Your task to perform on an android device: snooze an email in the gmail app Image 0: 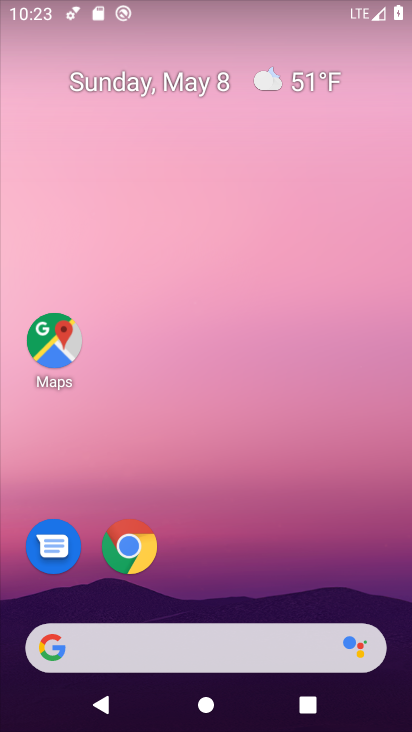
Step 0: drag from (396, 659) to (309, 47)
Your task to perform on an android device: snooze an email in the gmail app Image 1: 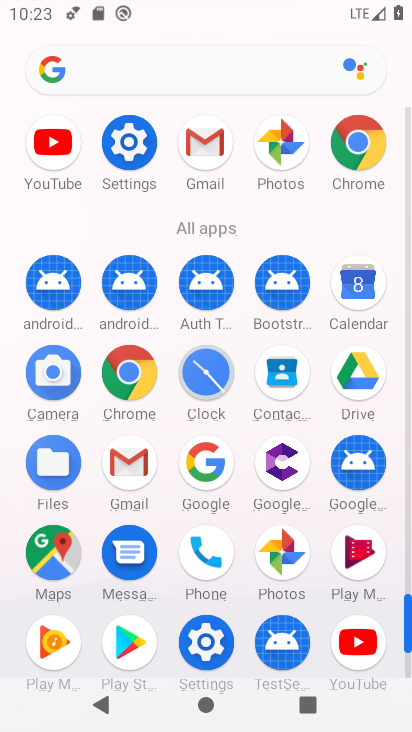
Step 1: click (127, 462)
Your task to perform on an android device: snooze an email in the gmail app Image 2: 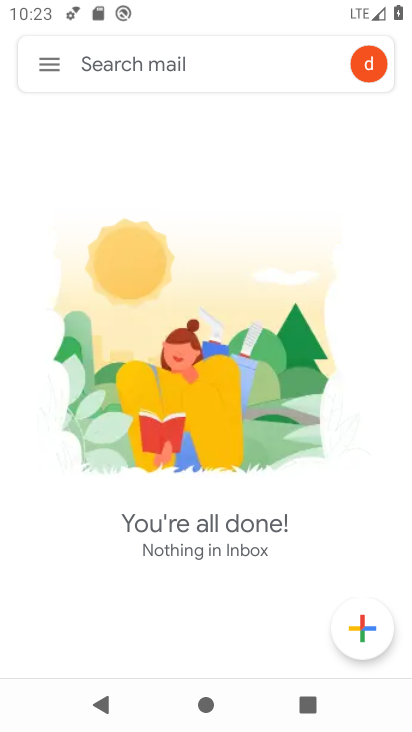
Step 2: click (49, 58)
Your task to perform on an android device: snooze an email in the gmail app Image 3: 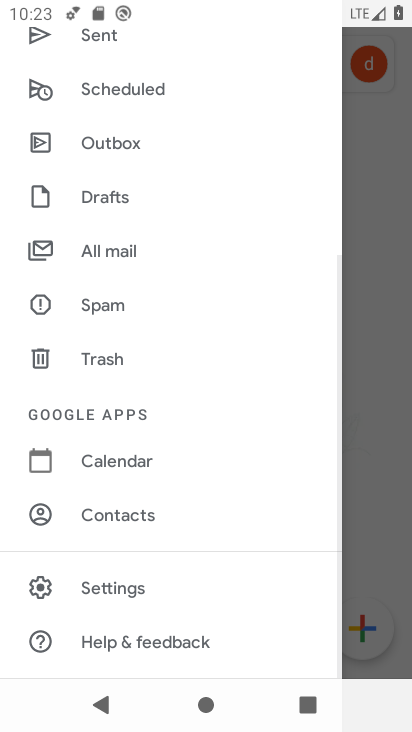
Step 3: click (113, 252)
Your task to perform on an android device: snooze an email in the gmail app Image 4: 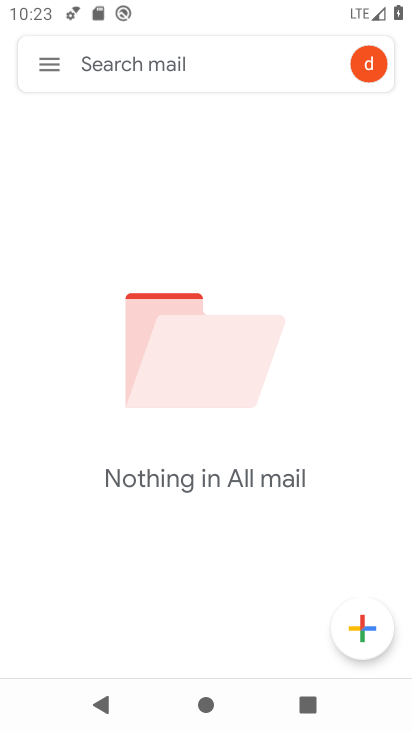
Step 4: task complete